Your task to perform on an android device: open sync settings in chrome Image 0: 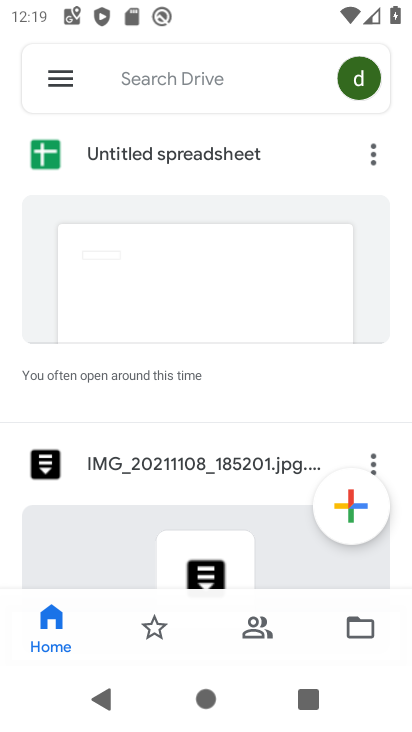
Step 0: press home button
Your task to perform on an android device: open sync settings in chrome Image 1: 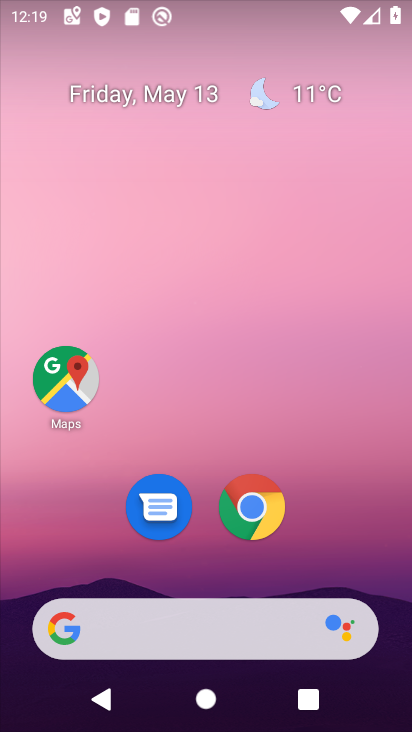
Step 1: click (224, 505)
Your task to perform on an android device: open sync settings in chrome Image 2: 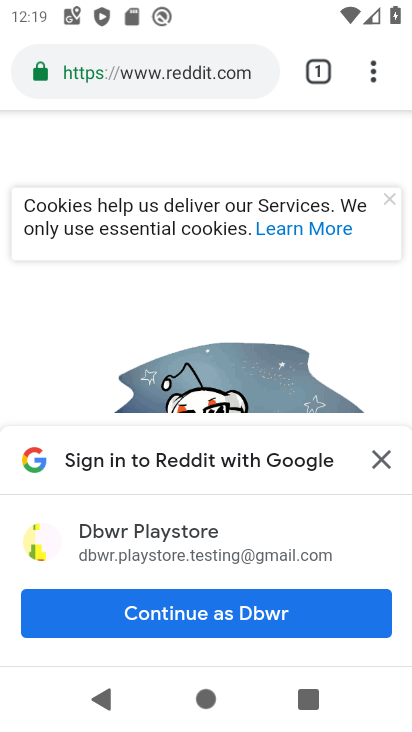
Step 2: click (382, 50)
Your task to perform on an android device: open sync settings in chrome Image 3: 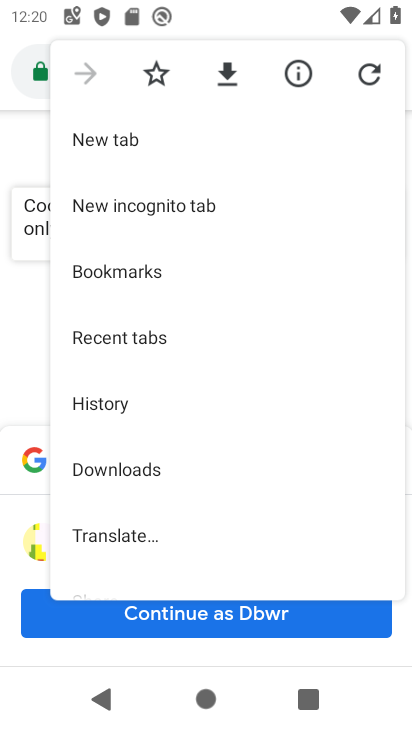
Step 3: drag from (115, 508) to (40, 114)
Your task to perform on an android device: open sync settings in chrome Image 4: 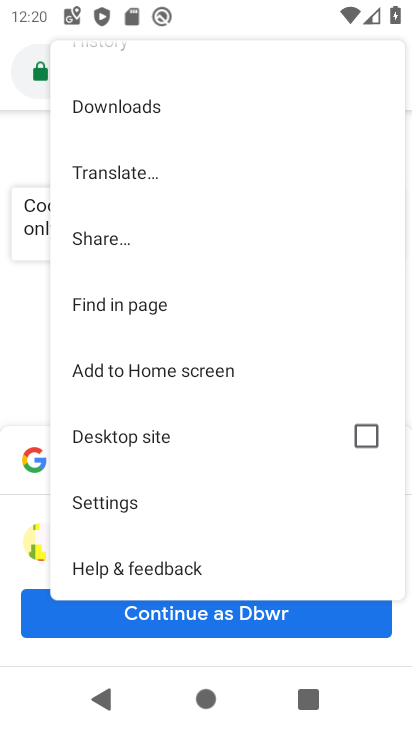
Step 4: click (141, 491)
Your task to perform on an android device: open sync settings in chrome Image 5: 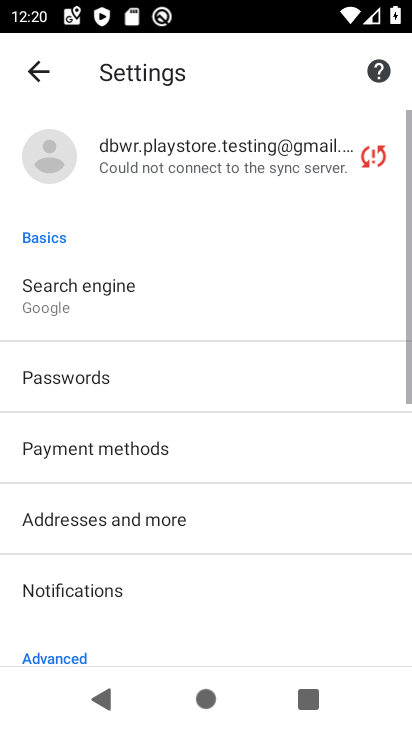
Step 5: click (123, 168)
Your task to perform on an android device: open sync settings in chrome Image 6: 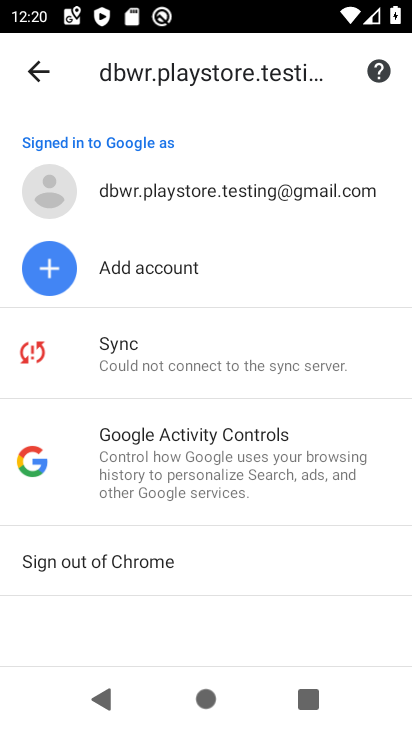
Step 6: task complete